Your task to perform on an android device: Find coffee shops on Maps Image 0: 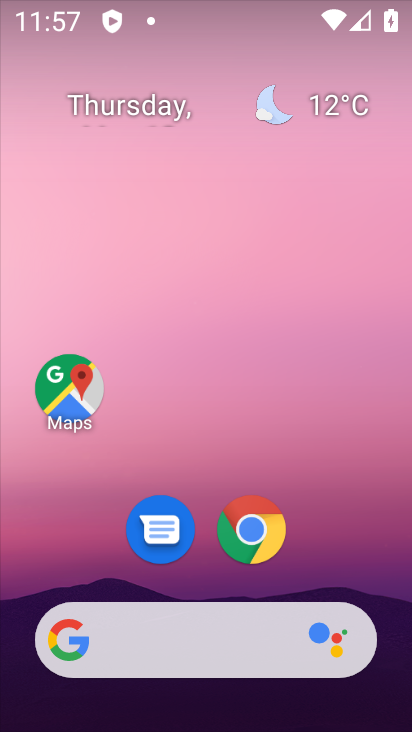
Step 0: drag from (324, 540) to (325, 218)
Your task to perform on an android device: Find coffee shops on Maps Image 1: 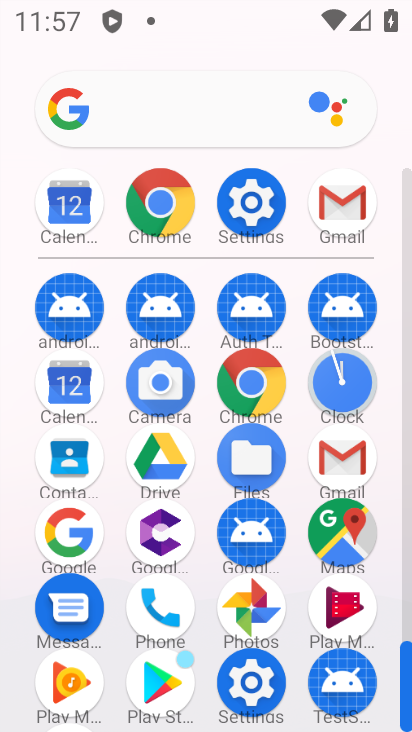
Step 1: click (344, 524)
Your task to perform on an android device: Find coffee shops on Maps Image 2: 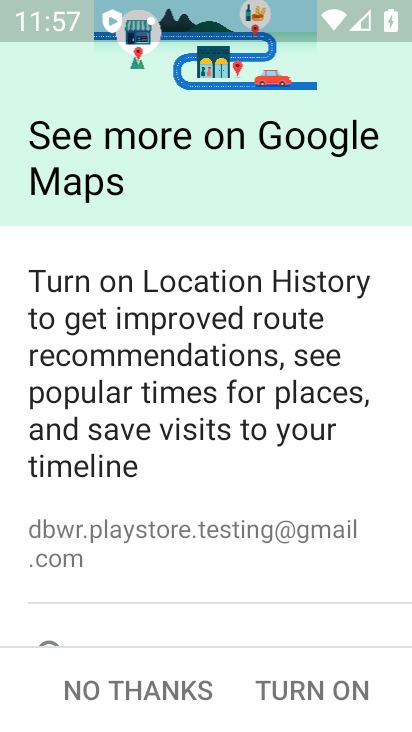
Step 2: click (152, 693)
Your task to perform on an android device: Find coffee shops on Maps Image 3: 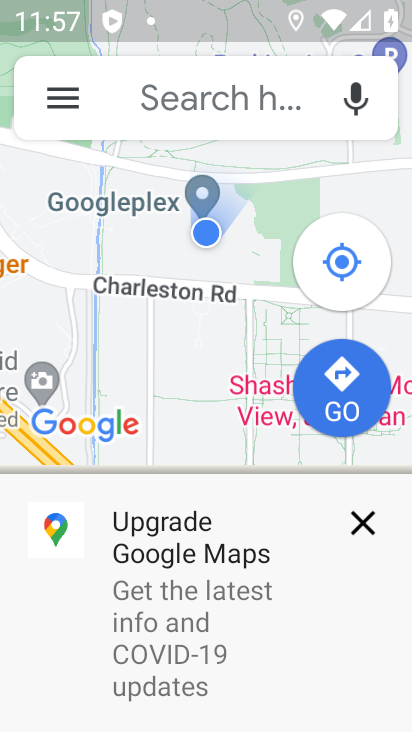
Step 3: click (357, 509)
Your task to perform on an android device: Find coffee shops on Maps Image 4: 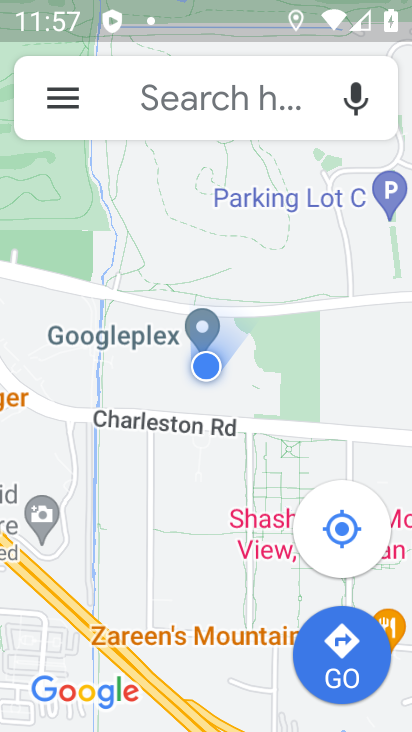
Step 4: click (235, 112)
Your task to perform on an android device: Find coffee shops on Maps Image 5: 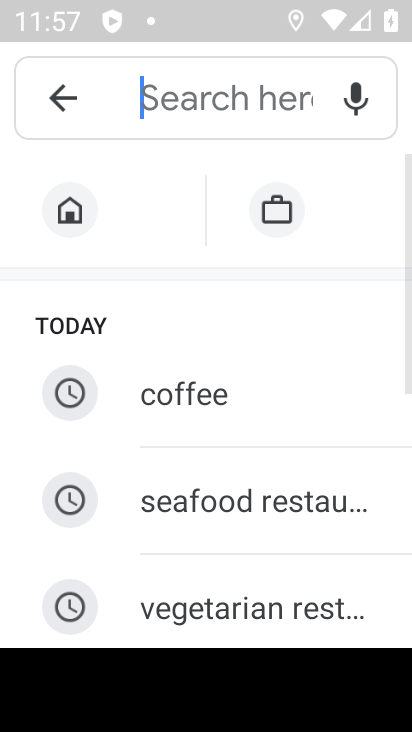
Step 5: type " coffee shops"
Your task to perform on an android device: Find coffee shops on Maps Image 6: 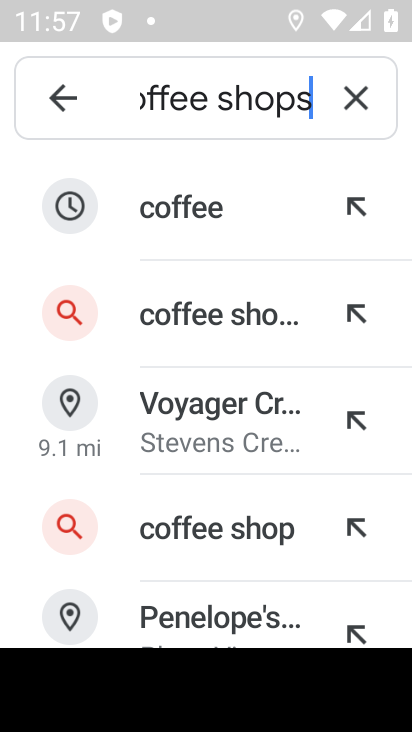
Step 6: click (204, 193)
Your task to perform on an android device: Find coffee shops on Maps Image 7: 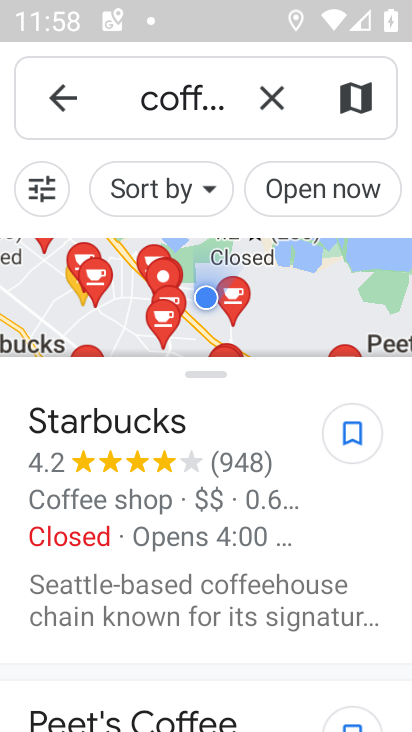
Step 7: task complete